Your task to perform on an android device: See recent photos Image 0: 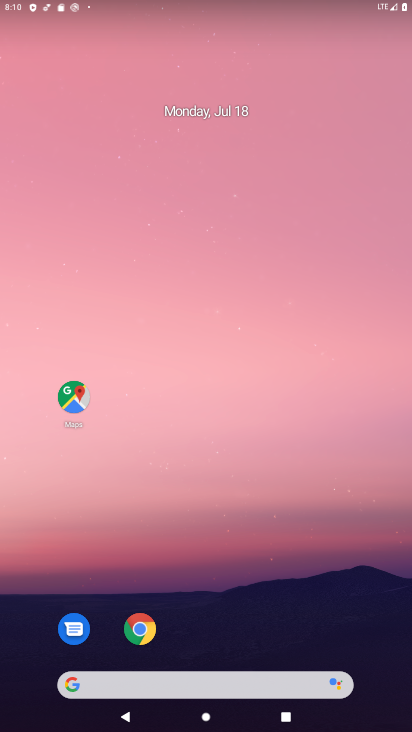
Step 0: drag from (205, 631) to (238, 286)
Your task to perform on an android device: See recent photos Image 1: 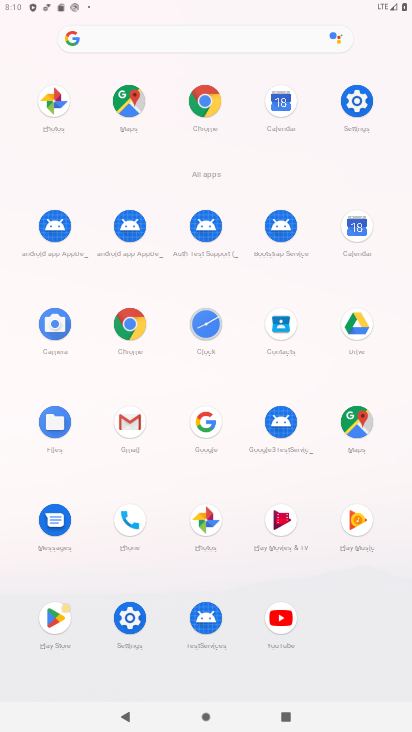
Step 1: click (212, 525)
Your task to perform on an android device: See recent photos Image 2: 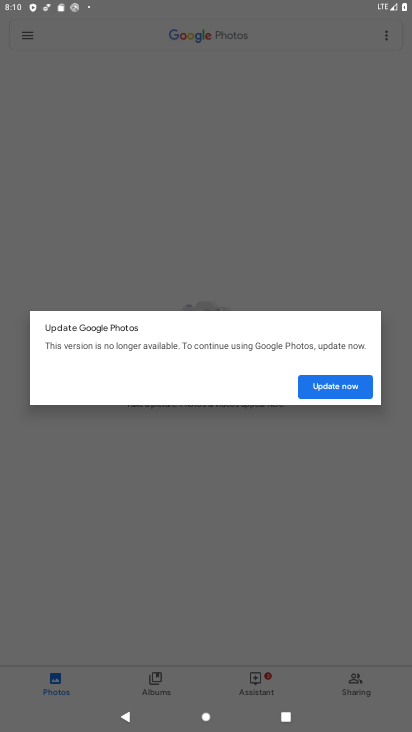
Step 2: click (329, 393)
Your task to perform on an android device: See recent photos Image 3: 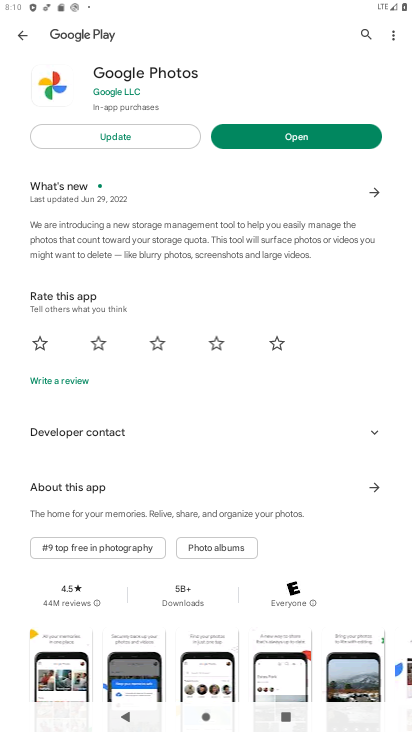
Step 3: click (286, 132)
Your task to perform on an android device: See recent photos Image 4: 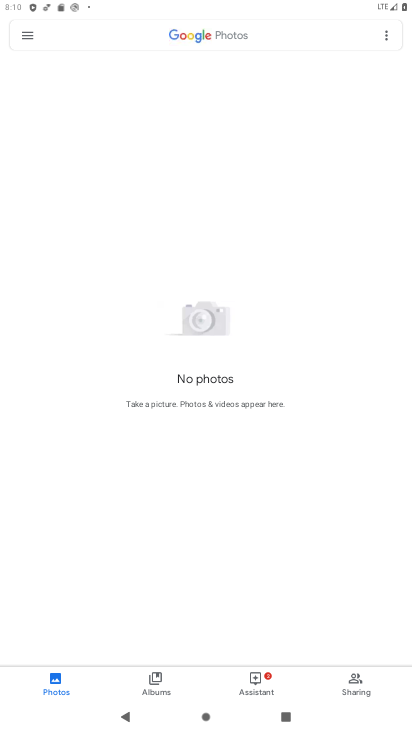
Step 4: task complete